Your task to perform on an android device: Go to settings Image 0: 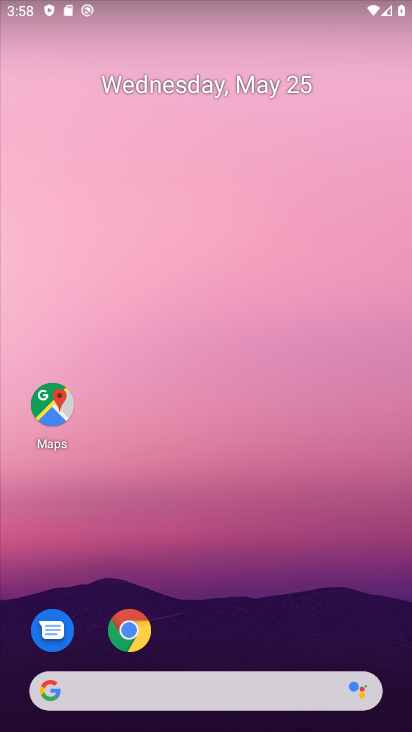
Step 0: drag from (180, 713) to (89, 207)
Your task to perform on an android device: Go to settings Image 1: 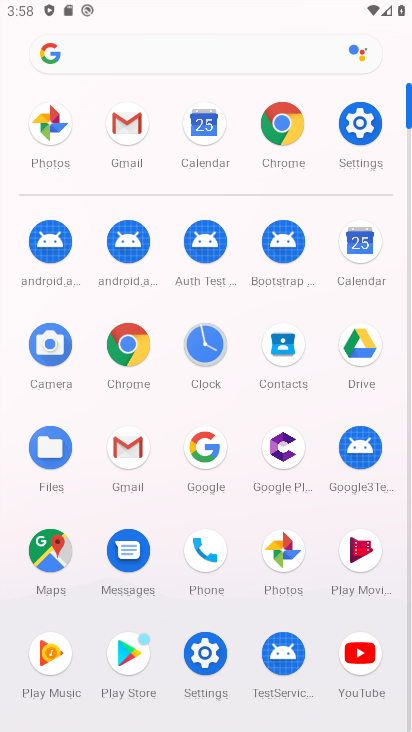
Step 1: click (349, 129)
Your task to perform on an android device: Go to settings Image 2: 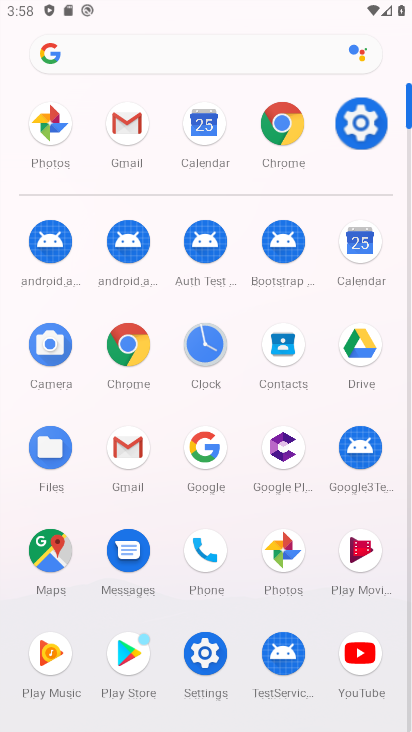
Step 2: click (349, 129)
Your task to perform on an android device: Go to settings Image 3: 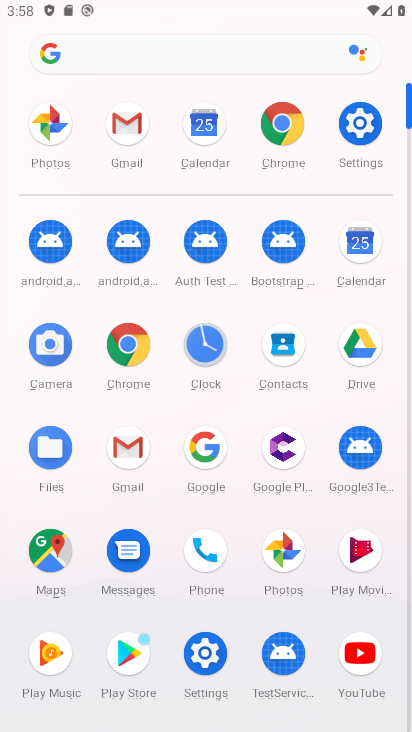
Step 3: click (355, 127)
Your task to perform on an android device: Go to settings Image 4: 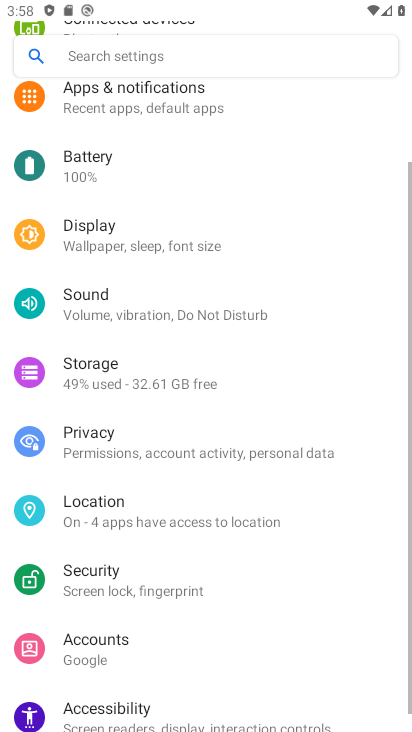
Step 4: click (360, 120)
Your task to perform on an android device: Go to settings Image 5: 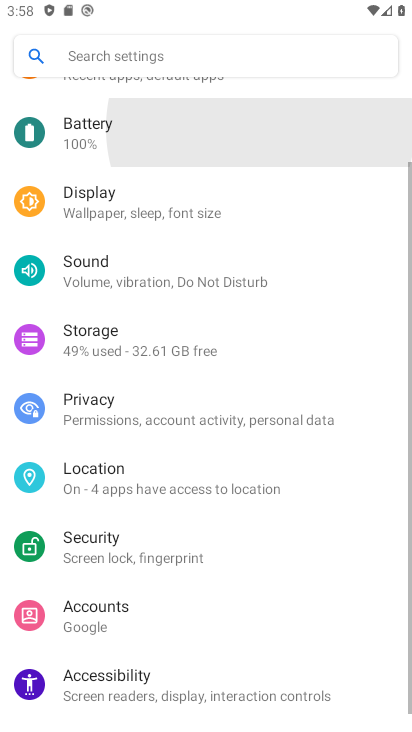
Step 5: click (360, 119)
Your task to perform on an android device: Go to settings Image 6: 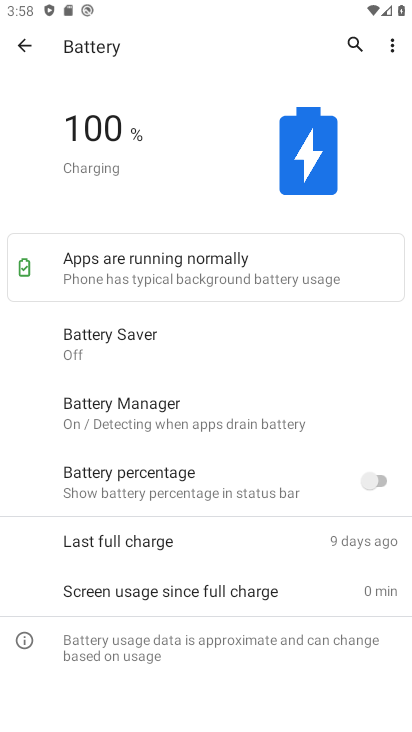
Step 6: click (23, 41)
Your task to perform on an android device: Go to settings Image 7: 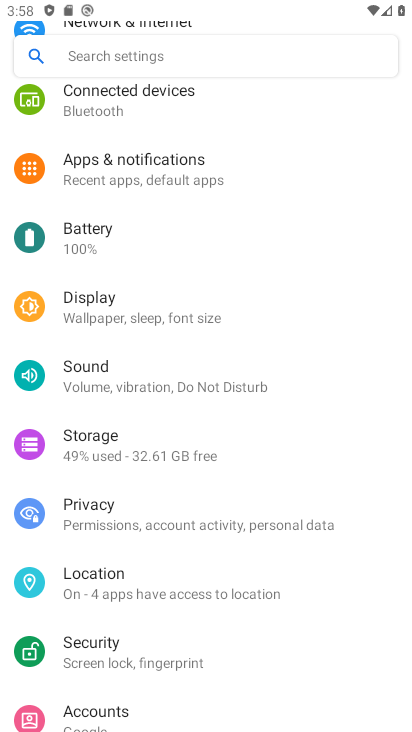
Step 7: task complete